Your task to perform on an android device: Go to Reddit.com Image 0: 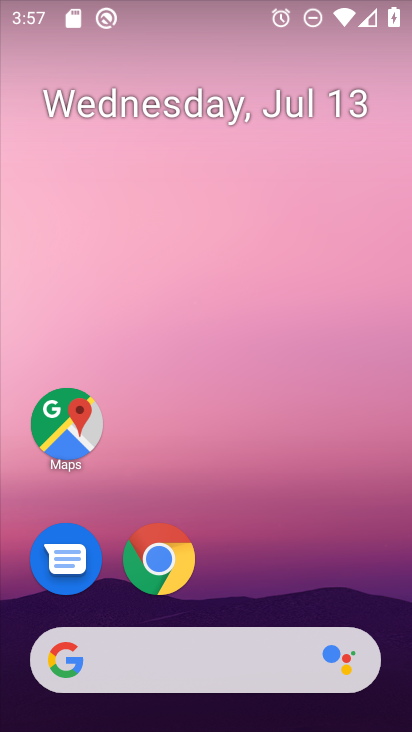
Step 0: drag from (333, 554) to (291, 75)
Your task to perform on an android device: Go to Reddit.com Image 1: 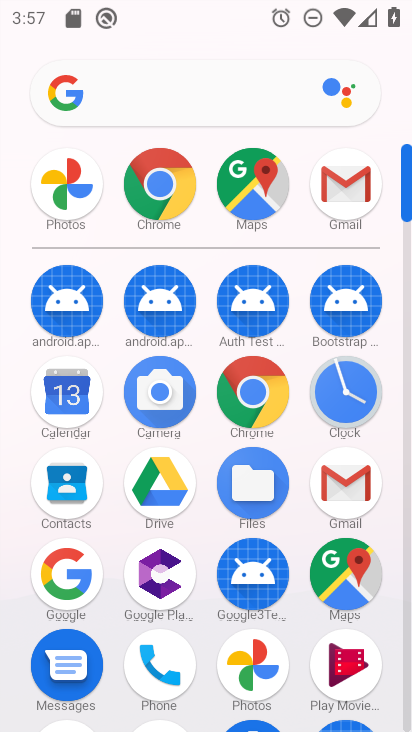
Step 1: click (260, 387)
Your task to perform on an android device: Go to Reddit.com Image 2: 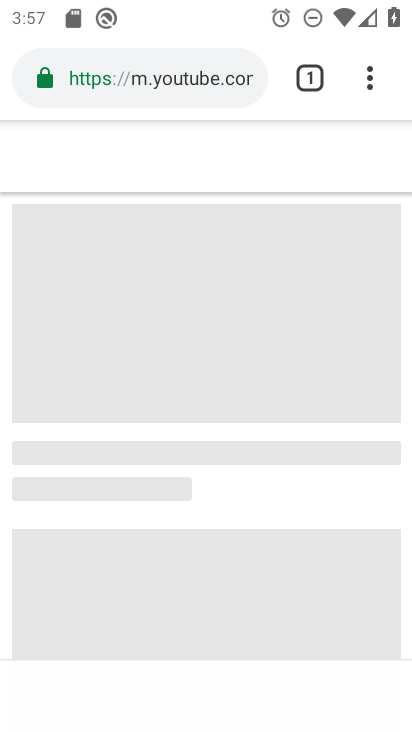
Step 2: click (191, 91)
Your task to perform on an android device: Go to Reddit.com Image 3: 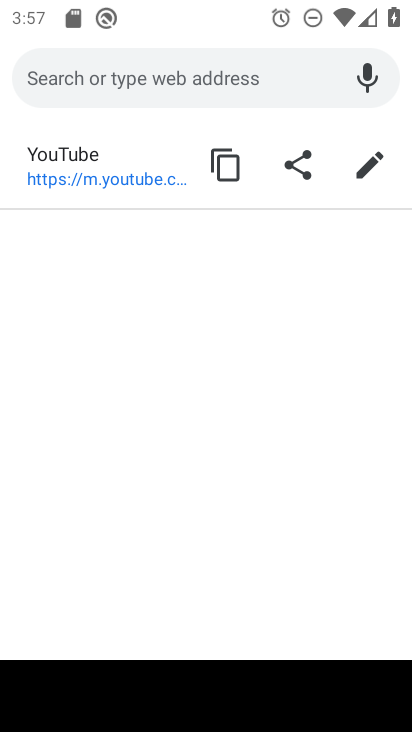
Step 3: type "reddit.com"
Your task to perform on an android device: Go to Reddit.com Image 4: 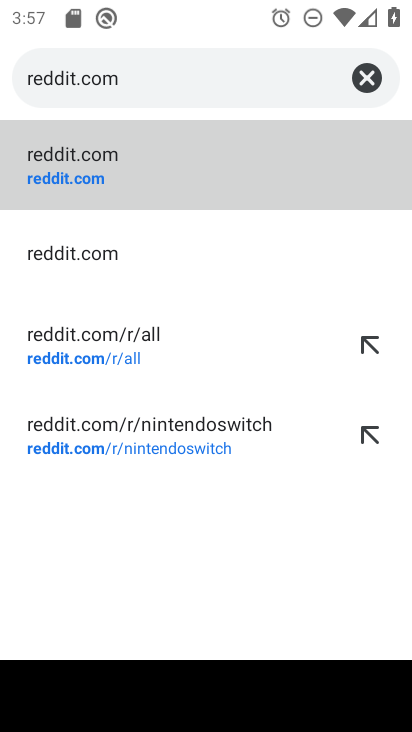
Step 4: click (135, 185)
Your task to perform on an android device: Go to Reddit.com Image 5: 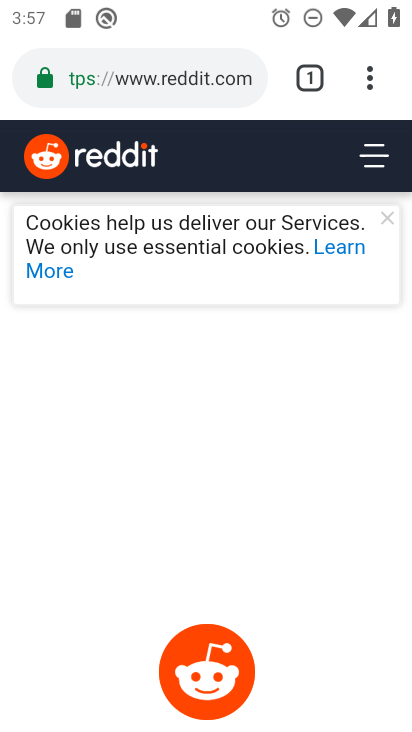
Step 5: task complete